Your task to perform on an android device: clear all cookies in the chrome app Image 0: 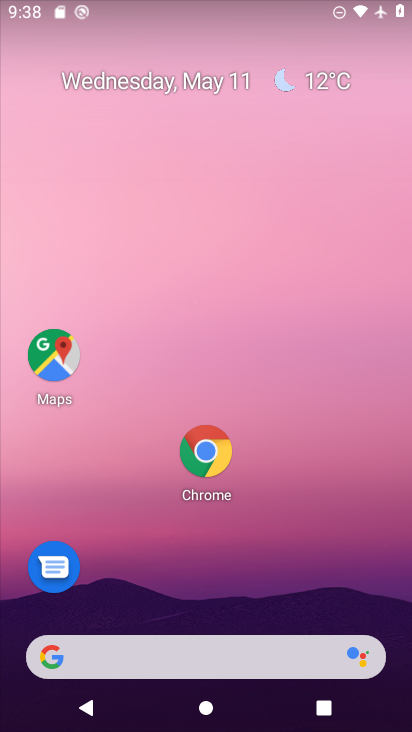
Step 0: drag from (183, 663) to (299, 203)
Your task to perform on an android device: clear all cookies in the chrome app Image 1: 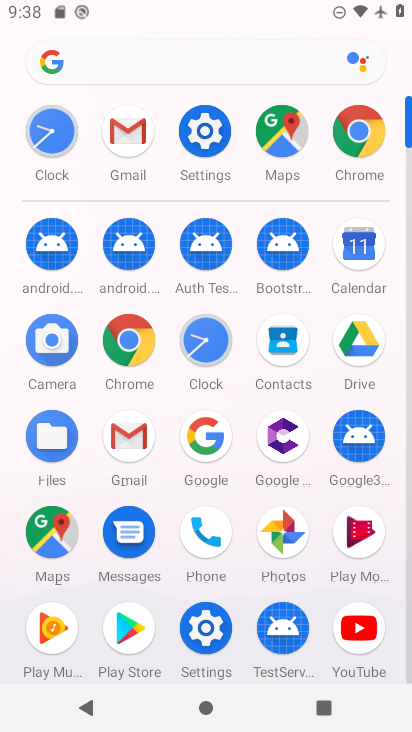
Step 1: click (364, 138)
Your task to perform on an android device: clear all cookies in the chrome app Image 2: 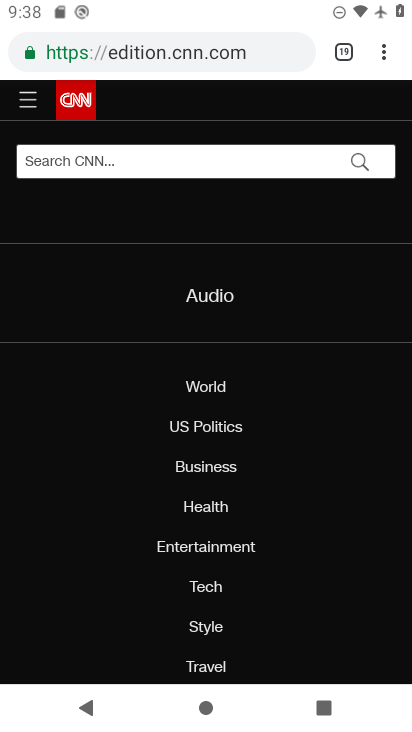
Step 2: drag from (384, 57) to (226, 594)
Your task to perform on an android device: clear all cookies in the chrome app Image 3: 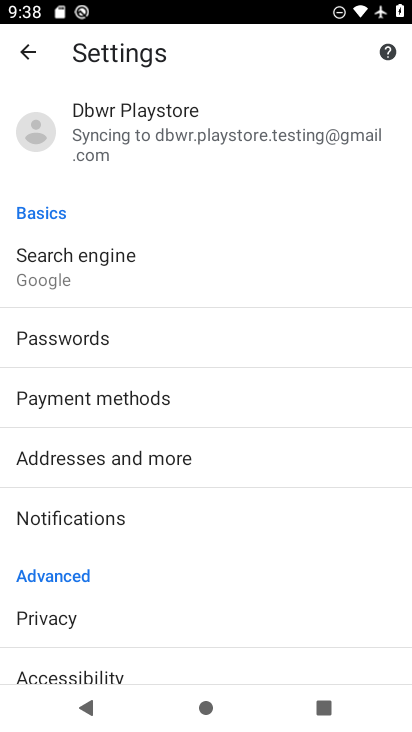
Step 3: drag from (145, 604) to (273, 228)
Your task to perform on an android device: clear all cookies in the chrome app Image 4: 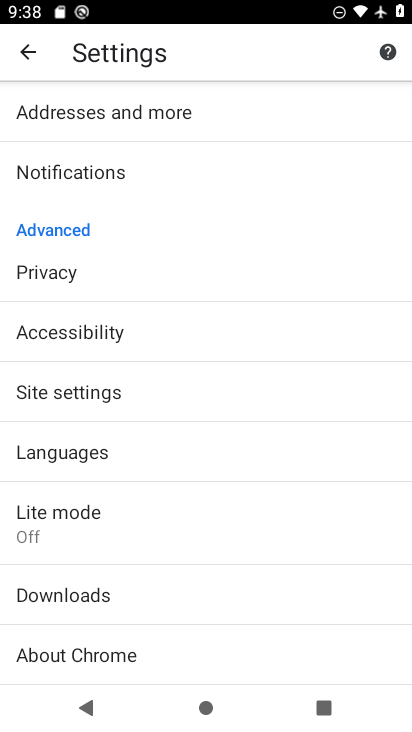
Step 4: click (48, 269)
Your task to perform on an android device: clear all cookies in the chrome app Image 5: 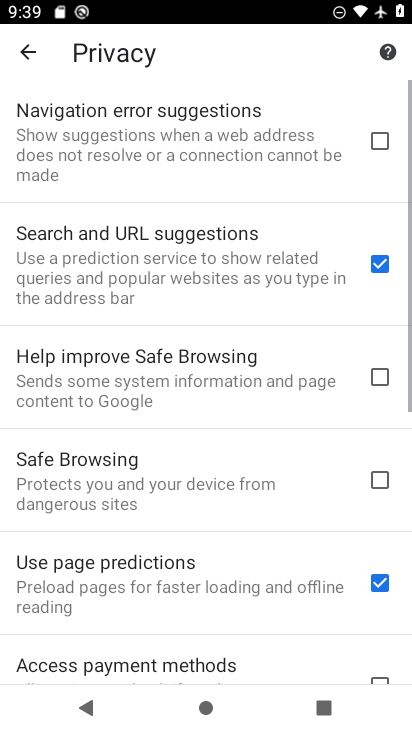
Step 5: drag from (157, 658) to (320, 185)
Your task to perform on an android device: clear all cookies in the chrome app Image 6: 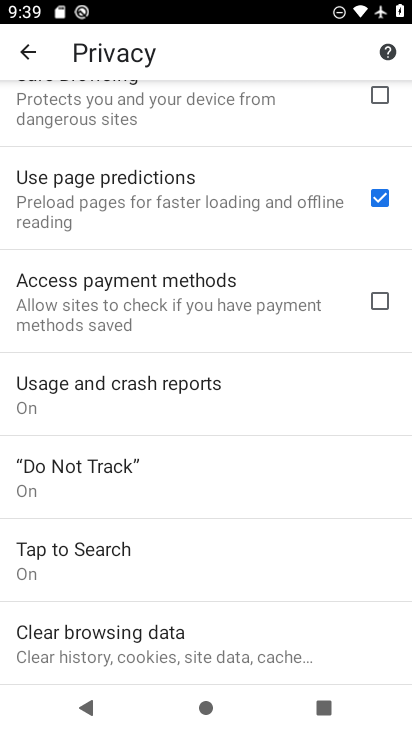
Step 6: click (173, 652)
Your task to perform on an android device: clear all cookies in the chrome app Image 7: 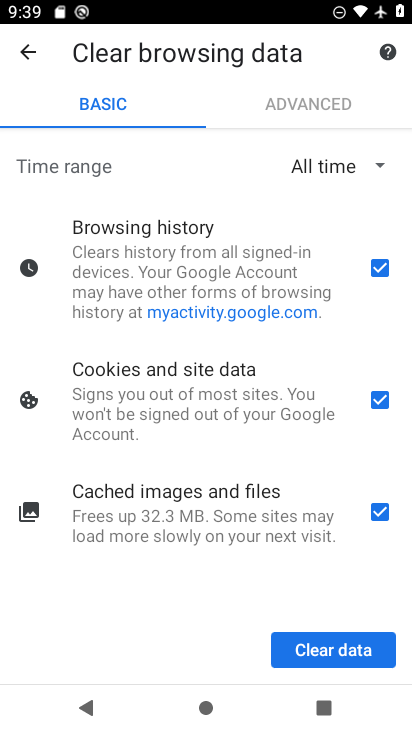
Step 7: click (384, 263)
Your task to perform on an android device: clear all cookies in the chrome app Image 8: 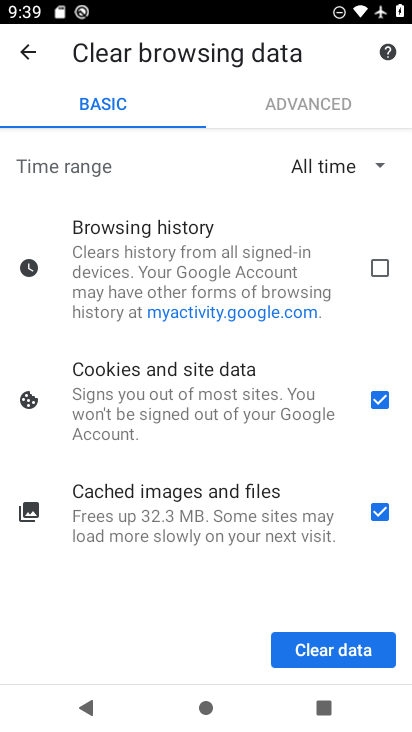
Step 8: click (378, 511)
Your task to perform on an android device: clear all cookies in the chrome app Image 9: 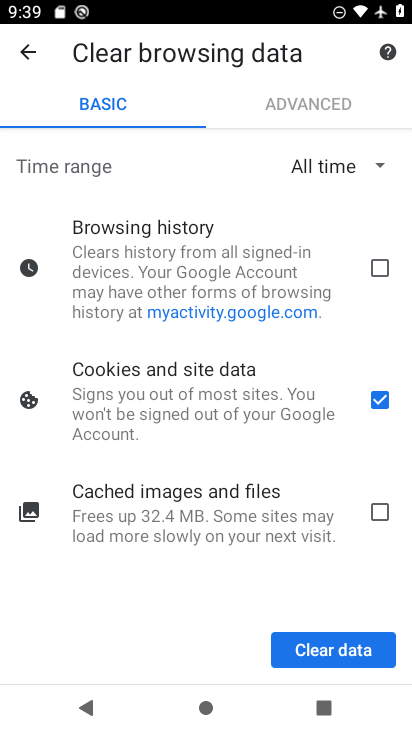
Step 9: click (332, 650)
Your task to perform on an android device: clear all cookies in the chrome app Image 10: 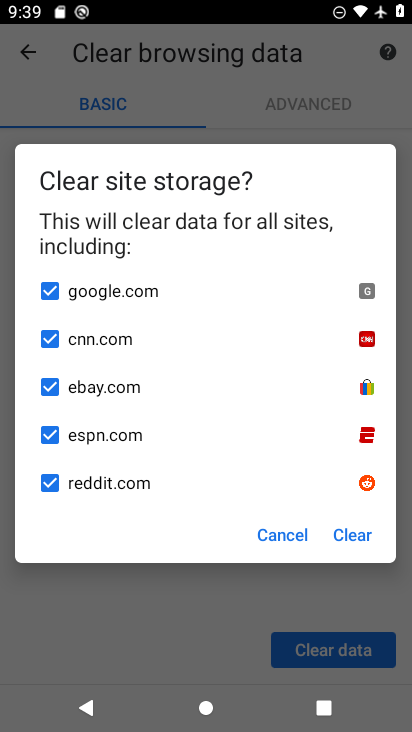
Step 10: click (350, 540)
Your task to perform on an android device: clear all cookies in the chrome app Image 11: 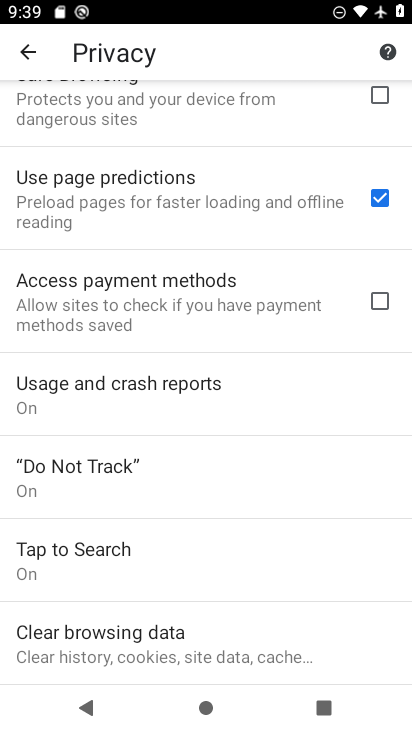
Step 11: task complete